Your task to perform on an android device: clear all cookies in the chrome app Image 0: 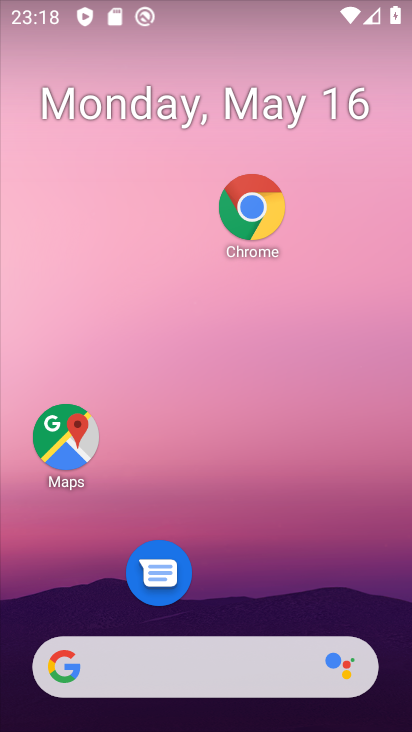
Step 0: drag from (268, 670) to (155, 6)
Your task to perform on an android device: clear all cookies in the chrome app Image 1: 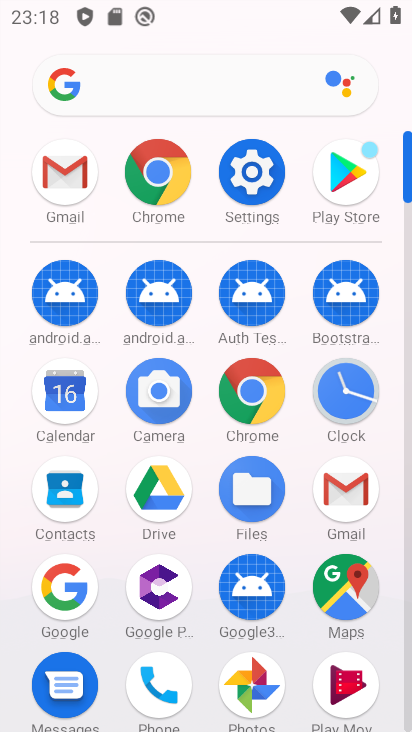
Step 1: click (244, 376)
Your task to perform on an android device: clear all cookies in the chrome app Image 2: 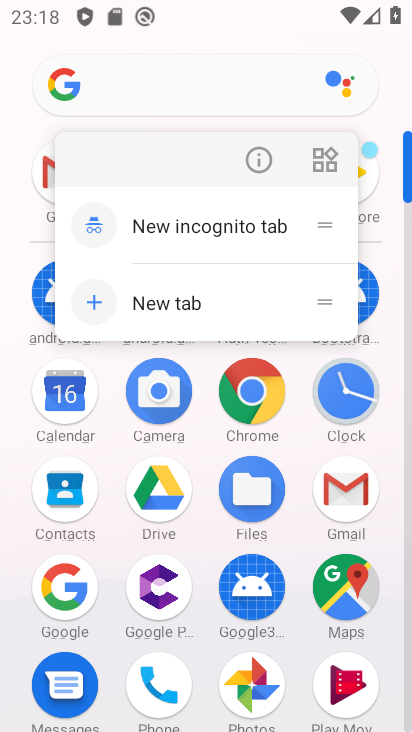
Step 2: click (384, 83)
Your task to perform on an android device: clear all cookies in the chrome app Image 3: 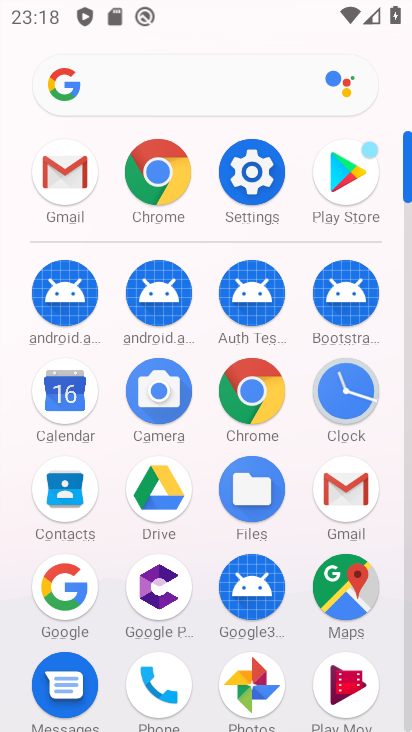
Step 3: click (253, 383)
Your task to perform on an android device: clear all cookies in the chrome app Image 4: 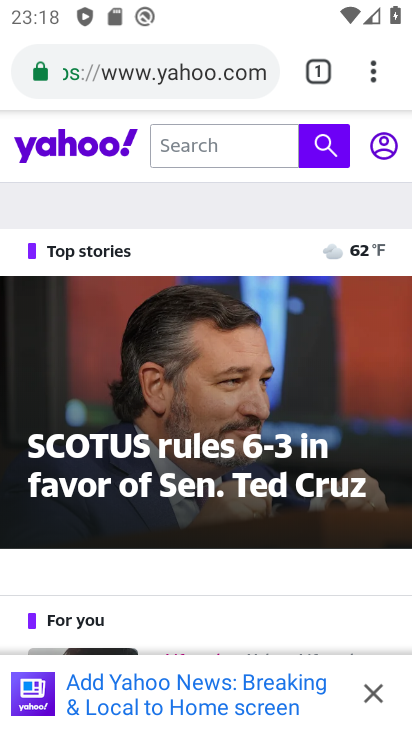
Step 4: click (368, 79)
Your task to perform on an android device: clear all cookies in the chrome app Image 5: 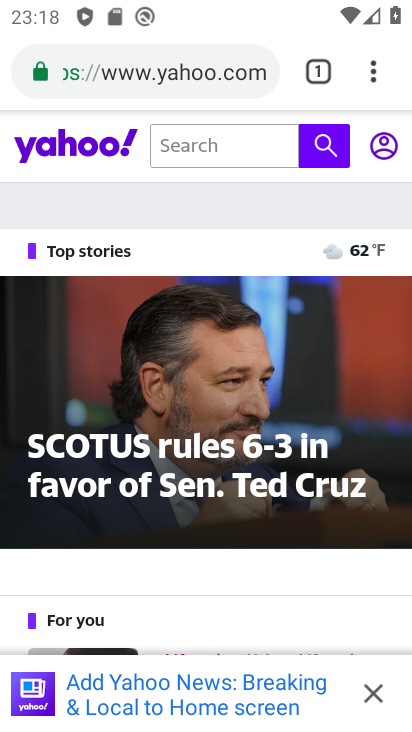
Step 5: drag from (374, 72) to (137, 574)
Your task to perform on an android device: clear all cookies in the chrome app Image 6: 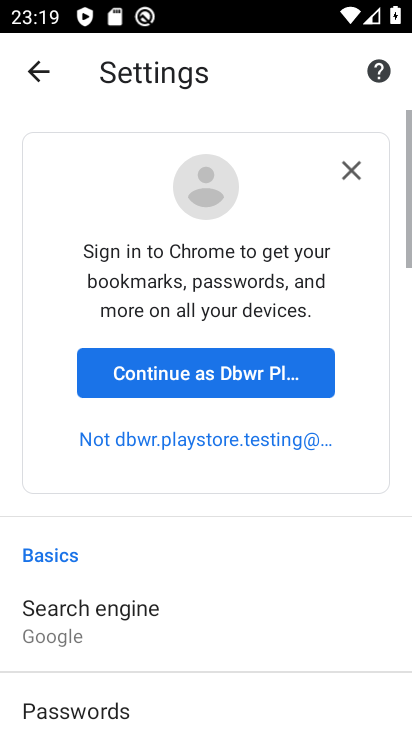
Step 6: drag from (101, 599) to (84, 98)
Your task to perform on an android device: clear all cookies in the chrome app Image 7: 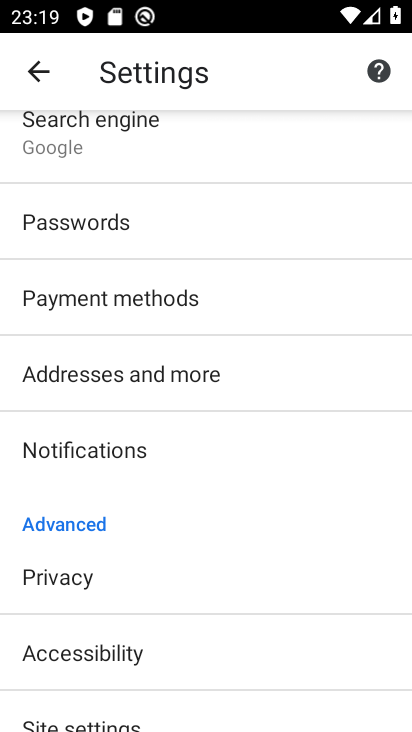
Step 7: click (163, 589)
Your task to perform on an android device: clear all cookies in the chrome app Image 8: 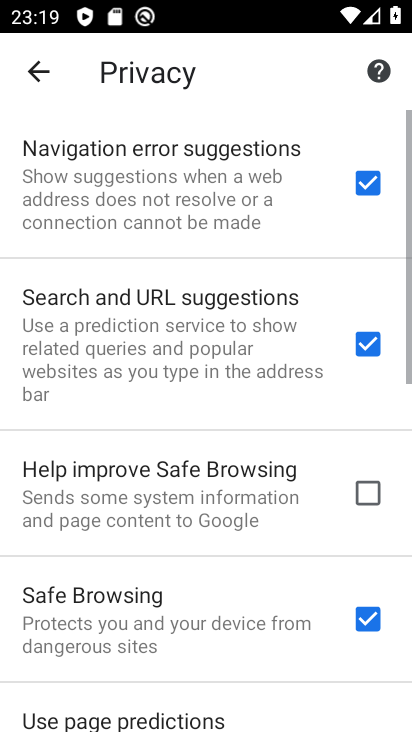
Step 8: drag from (223, 706) to (246, 93)
Your task to perform on an android device: clear all cookies in the chrome app Image 9: 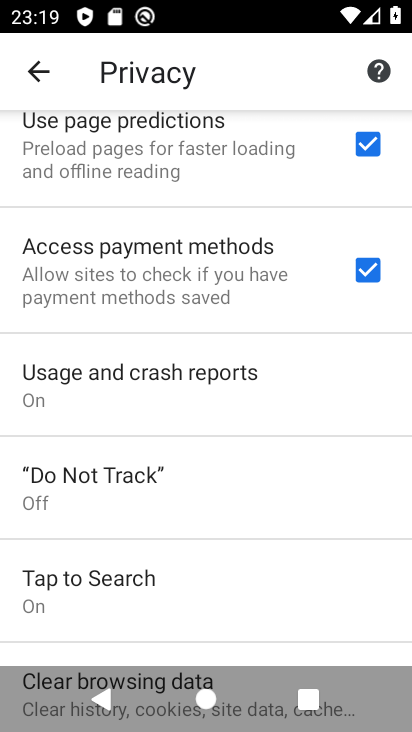
Step 9: drag from (309, 640) to (324, 220)
Your task to perform on an android device: clear all cookies in the chrome app Image 10: 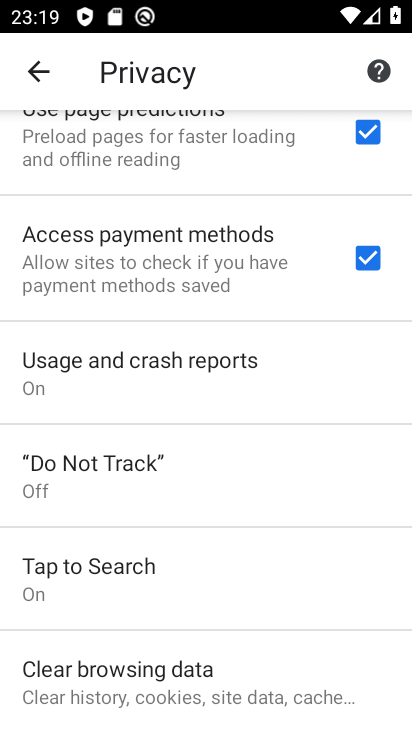
Step 10: click (266, 659)
Your task to perform on an android device: clear all cookies in the chrome app Image 11: 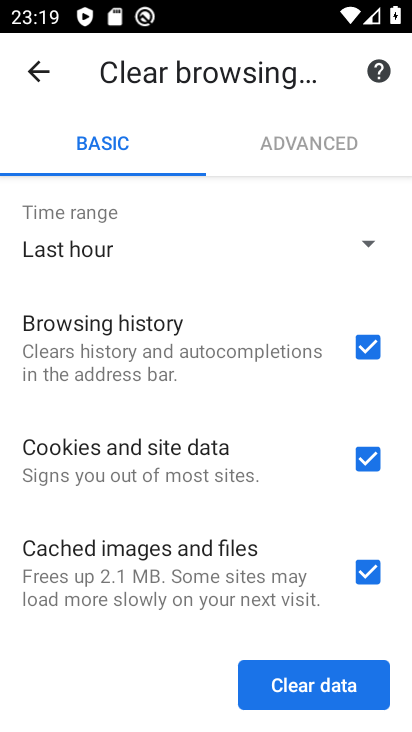
Step 11: click (330, 698)
Your task to perform on an android device: clear all cookies in the chrome app Image 12: 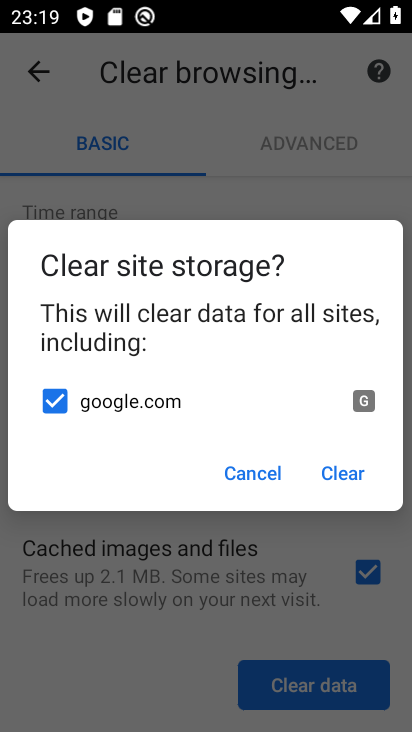
Step 12: click (347, 476)
Your task to perform on an android device: clear all cookies in the chrome app Image 13: 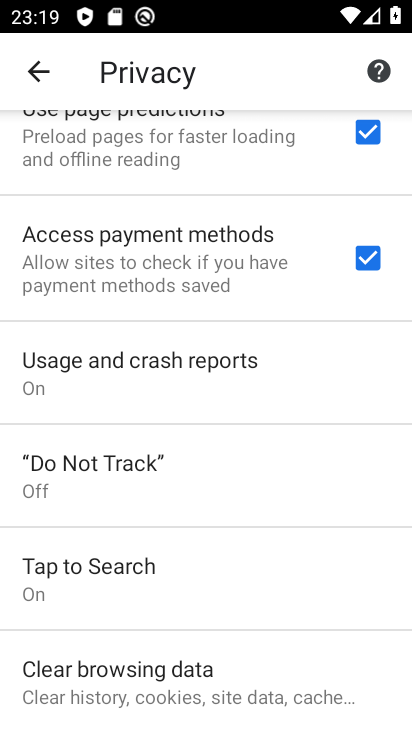
Step 13: task complete